Your task to perform on an android device: Go to network settings Image 0: 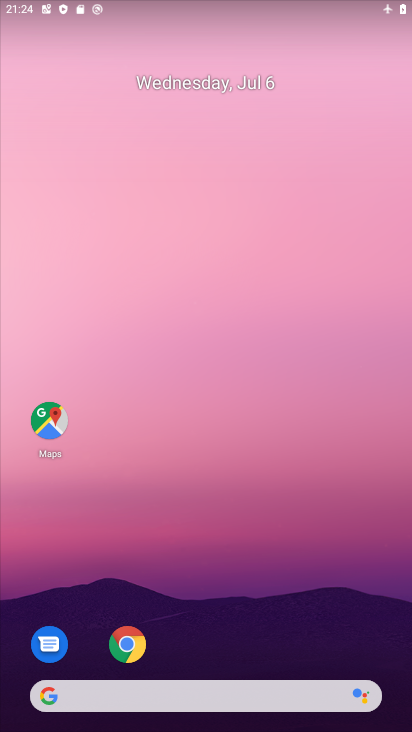
Step 0: drag from (219, 524) to (219, 185)
Your task to perform on an android device: Go to network settings Image 1: 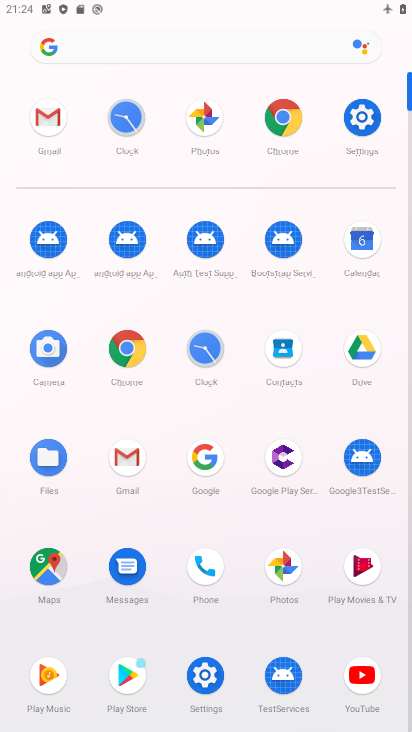
Step 1: click (347, 120)
Your task to perform on an android device: Go to network settings Image 2: 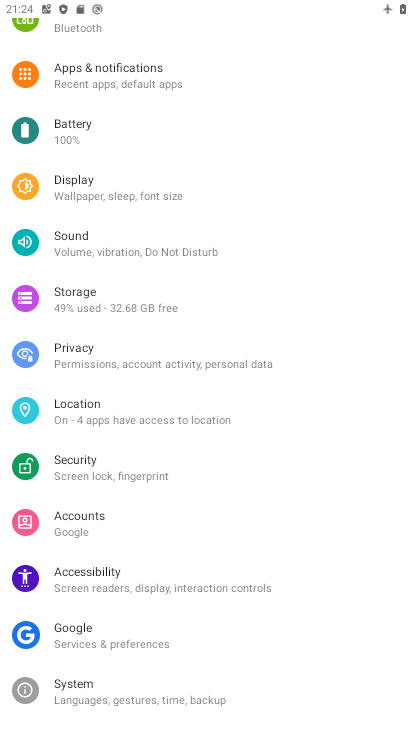
Step 2: drag from (159, 146) to (198, 563)
Your task to perform on an android device: Go to network settings Image 3: 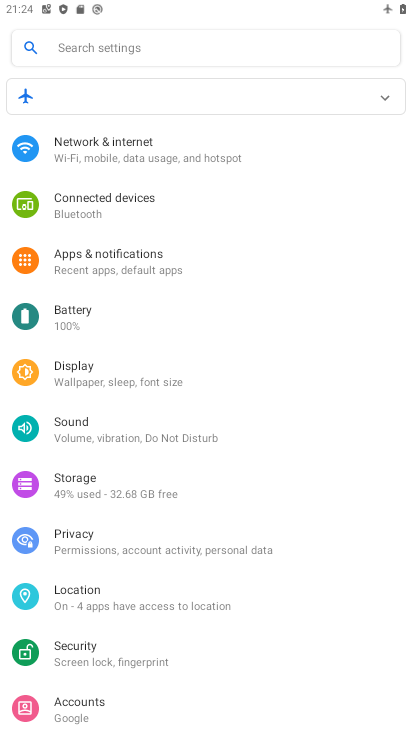
Step 3: click (176, 178)
Your task to perform on an android device: Go to network settings Image 4: 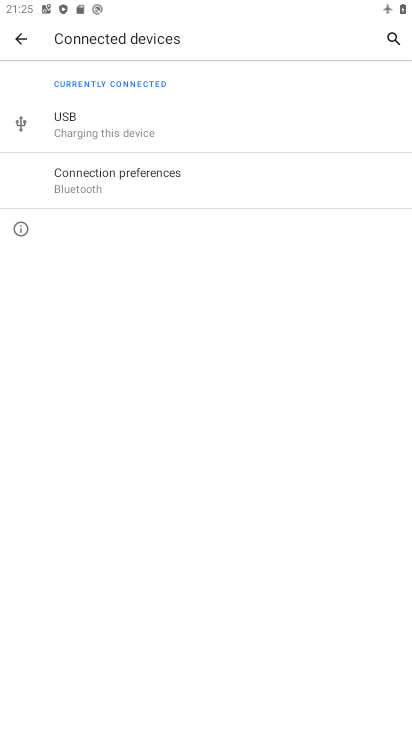
Step 4: click (28, 34)
Your task to perform on an android device: Go to network settings Image 5: 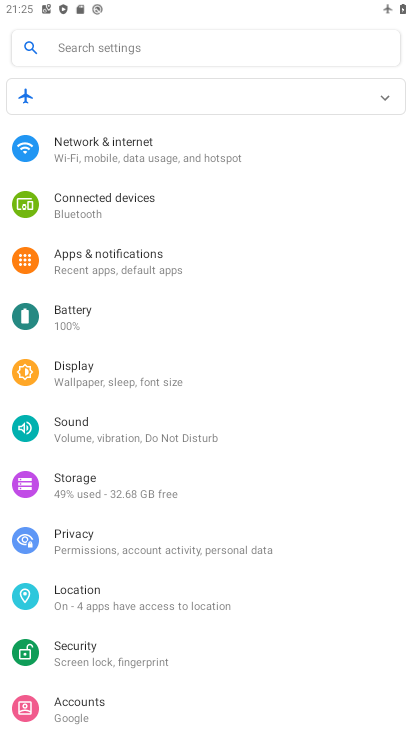
Step 5: click (140, 156)
Your task to perform on an android device: Go to network settings Image 6: 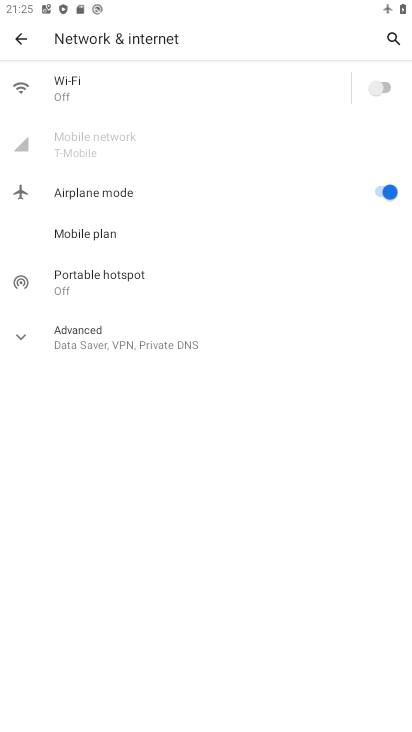
Step 6: task complete